Your task to perform on an android device: Open the stopwatch Image 0: 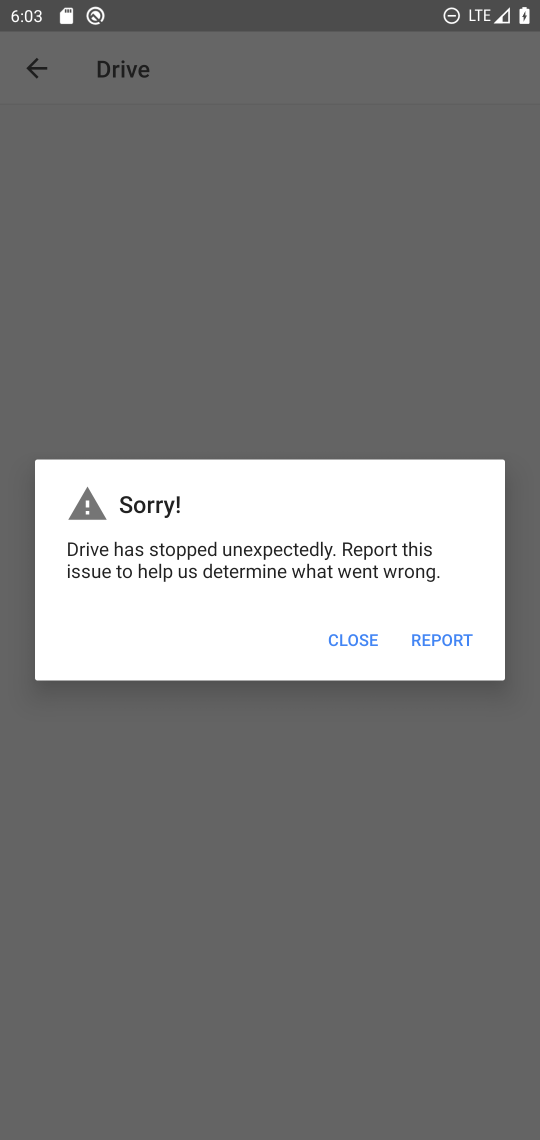
Step 0: drag from (257, 900) to (289, 294)
Your task to perform on an android device: Open the stopwatch Image 1: 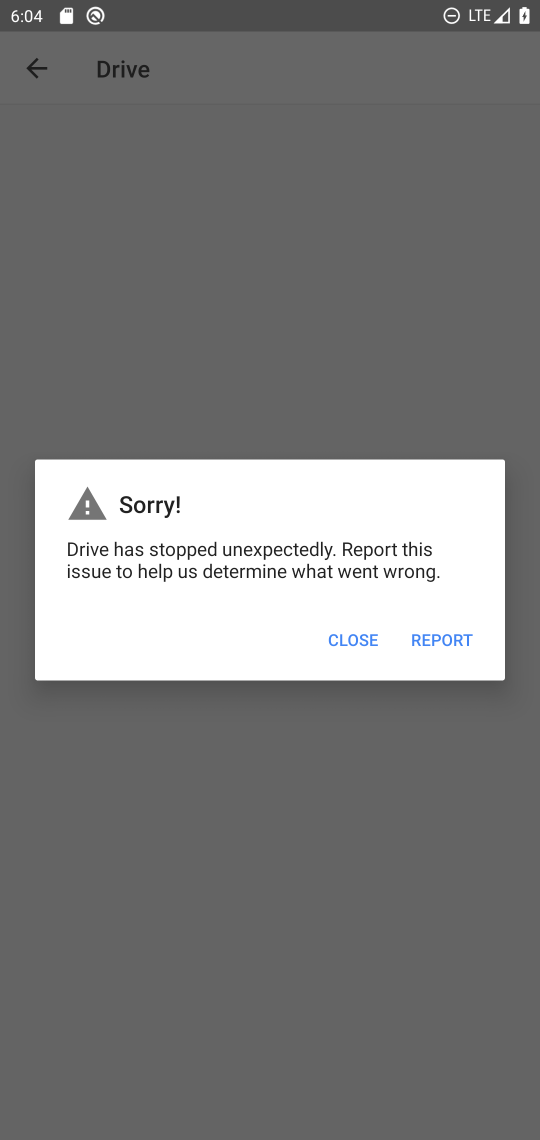
Step 1: press home button
Your task to perform on an android device: Open the stopwatch Image 2: 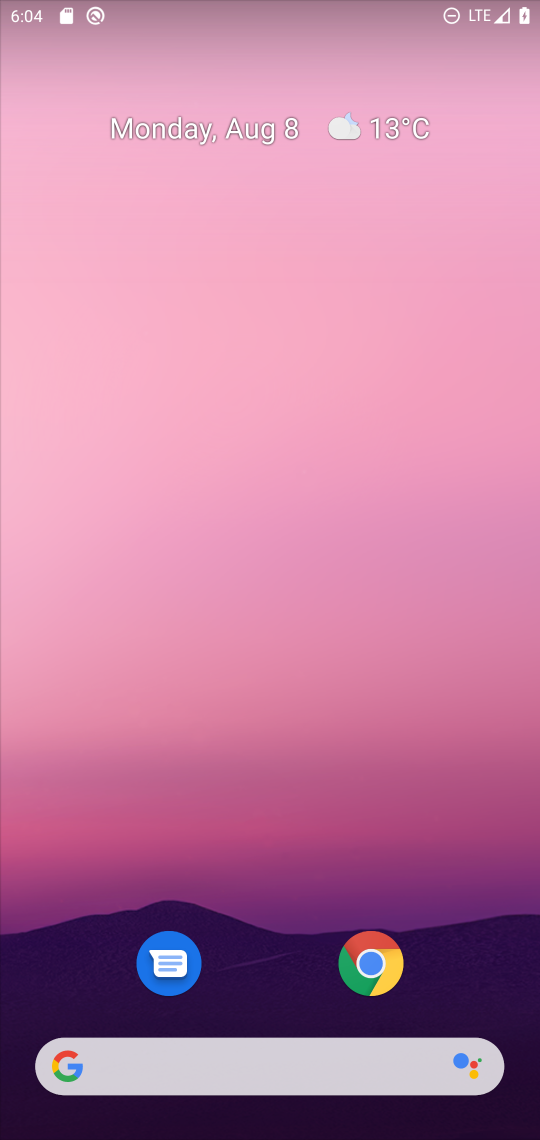
Step 2: drag from (250, 868) to (255, 153)
Your task to perform on an android device: Open the stopwatch Image 3: 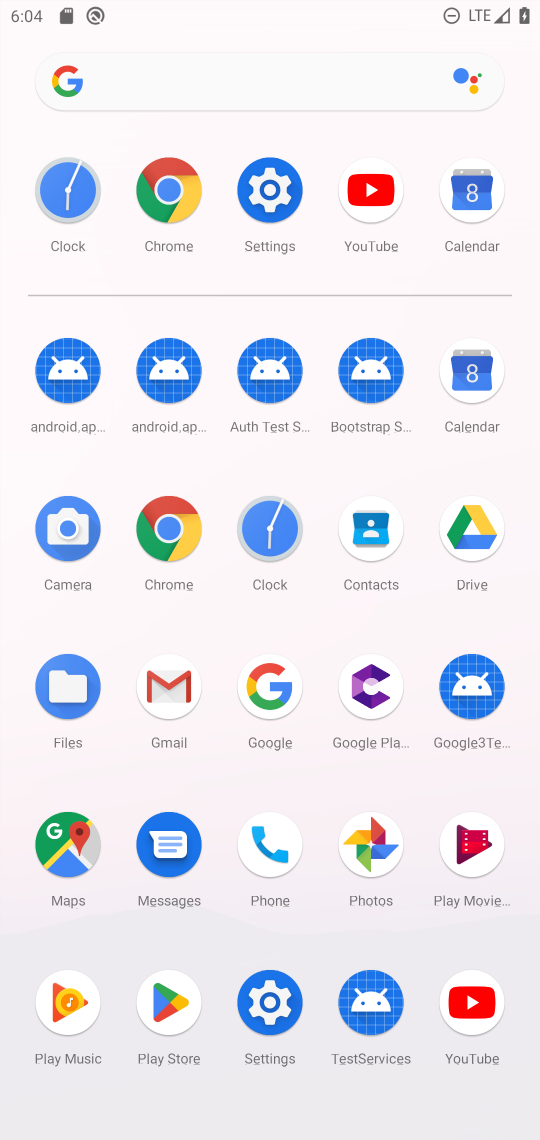
Step 3: click (73, 171)
Your task to perform on an android device: Open the stopwatch Image 4: 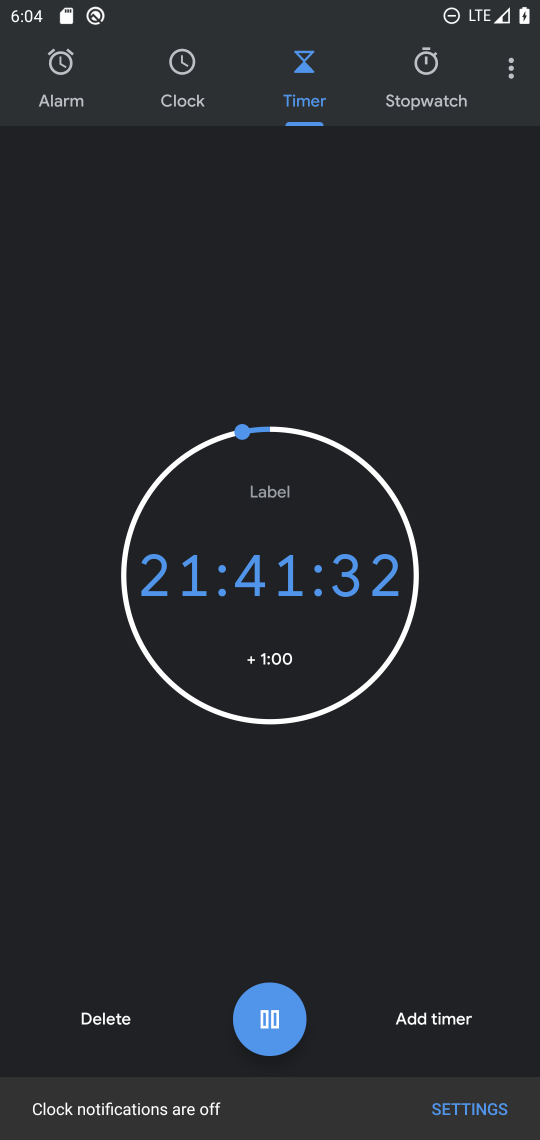
Step 4: click (401, 88)
Your task to perform on an android device: Open the stopwatch Image 5: 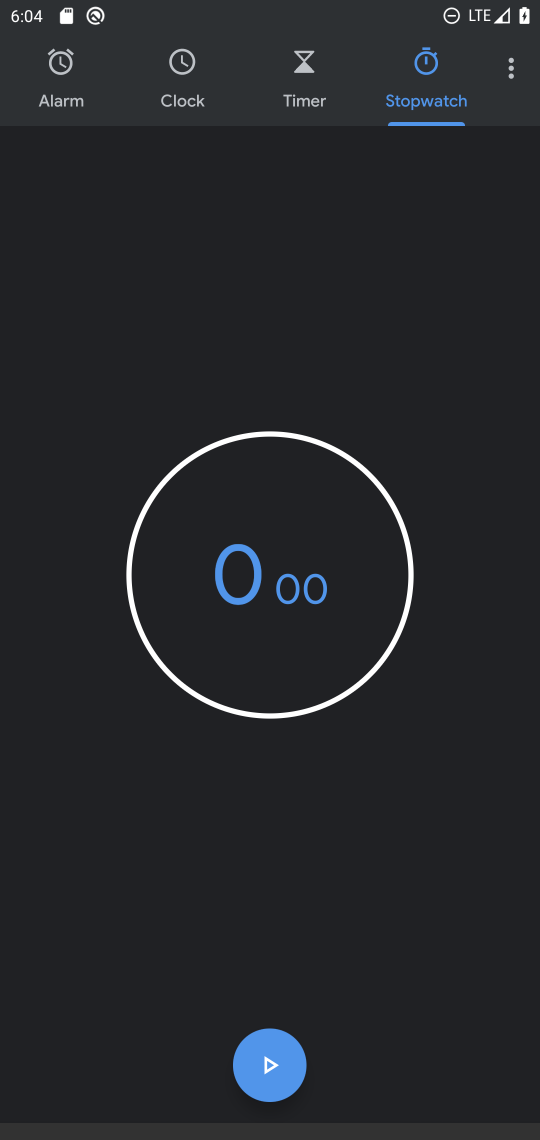
Step 5: task complete